Your task to perform on an android device: Open Google Chrome and click the shortcut for Amazon.com Image 0: 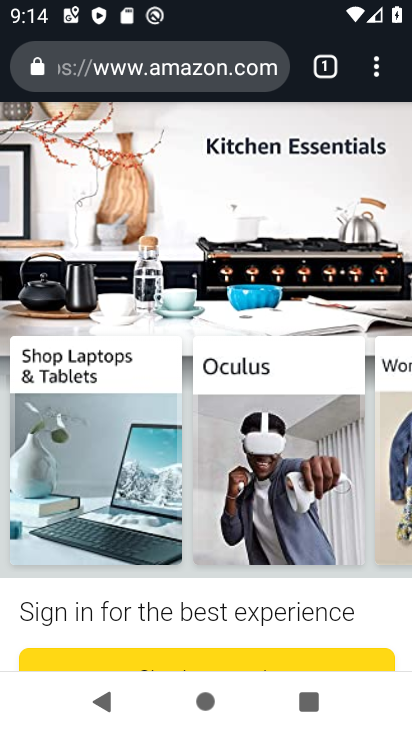
Step 0: press home button
Your task to perform on an android device: Open Google Chrome and click the shortcut for Amazon.com Image 1: 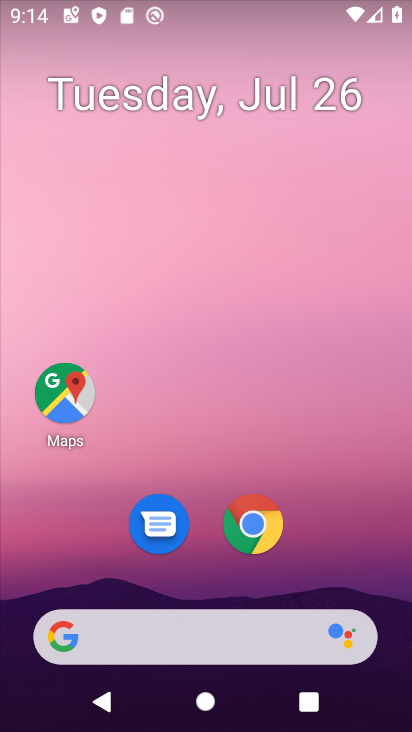
Step 1: click (263, 525)
Your task to perform on an android device: Open Google Chrome and click the shortcut for Amazon.com Image 2: 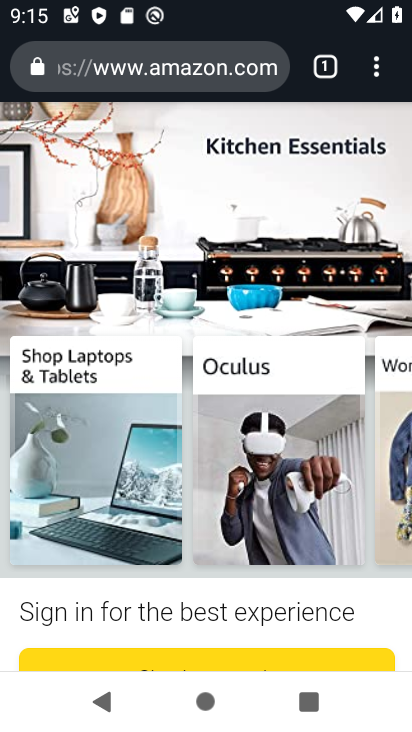
Step 2: task complete